Your task to perform on an android device: turn off priority inbox in the gmail app Image 0: 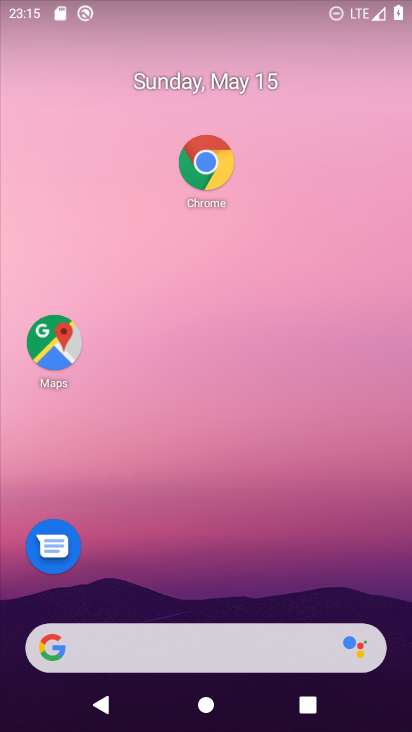
Step 0: drag from (227, 573) to (281, 270)
Your task to perform on an android device: turn off priority inbox in the gmail app Image 1: 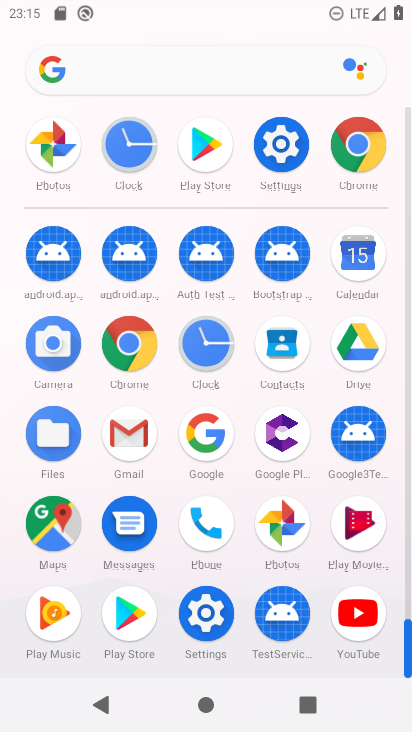
Step 1: drag from (346, 145) to (310, 375)
Your task to perform on an android device: turn off priority inbox in the gmail app Image 2: 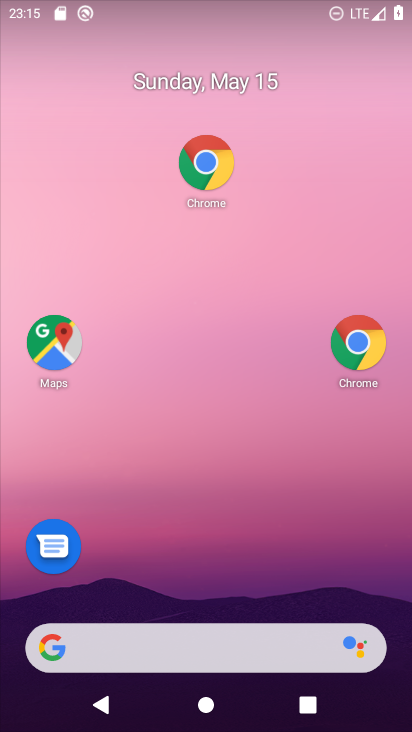
Step 2: press home button
Your task to perform on an android device: turn off priority inbox in the gmail app Image 3: 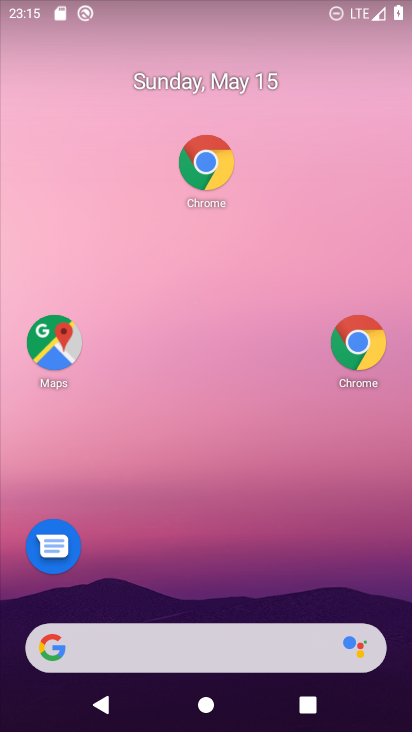
Step 3: drag from (240, 555) to (259, 292)
Your task to perform on an android device: turn off priority inbox in the gmail app Image 4: 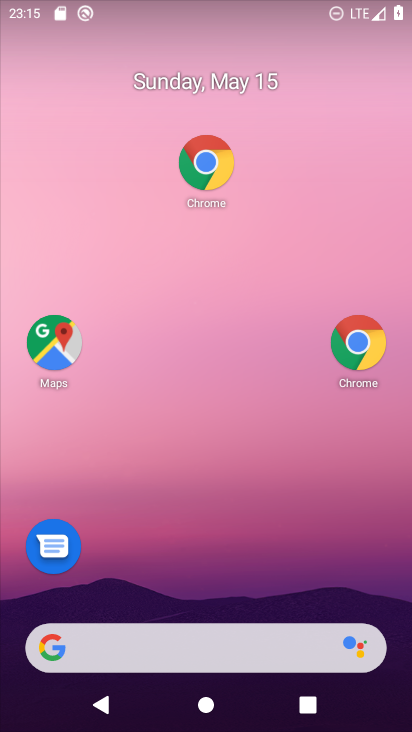
Step 4: drag from (209, 581) to (267, 228)
Your task to perform on an android device: turn off priority inbox in the gmail app Image 5: 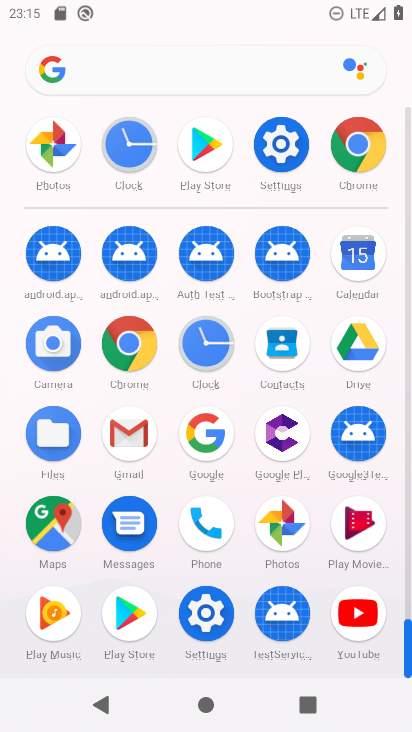
Step 5: click (130, 438)
Your task to perform on an android device: turn off priority inbox in the gmail app Image 6: 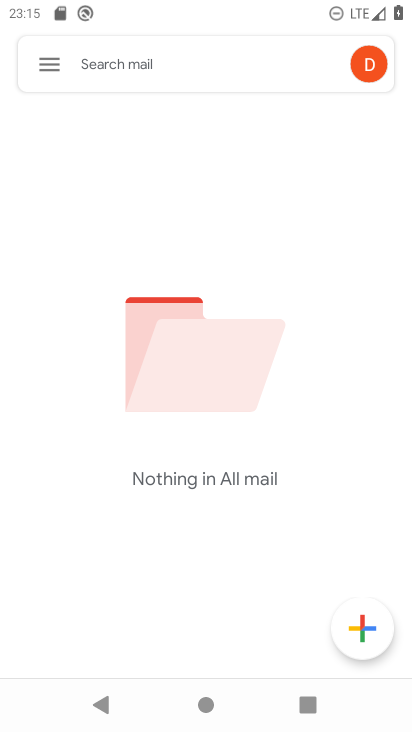
Step 6: click (50, 61)
Your task to perform on an android device: turn off priority inbox in the gmail app Image 7: 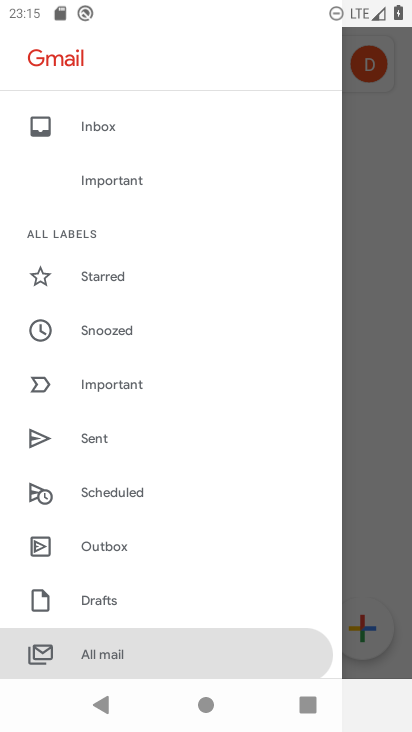
Step 7: drag from (153, 597) to (239, 240)
Your task to perform on an android device: turn off priority inbox in the gmail app Image 8: 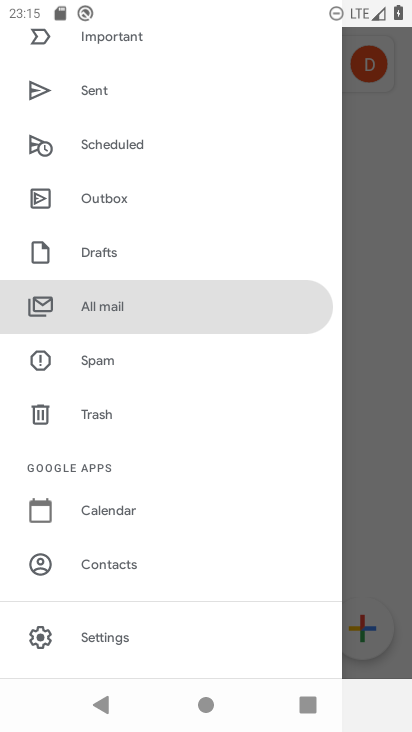
Step 8: click (98, 635)
Your task to perform on an android device: turn off priority inbox in the gmail app Image 9: 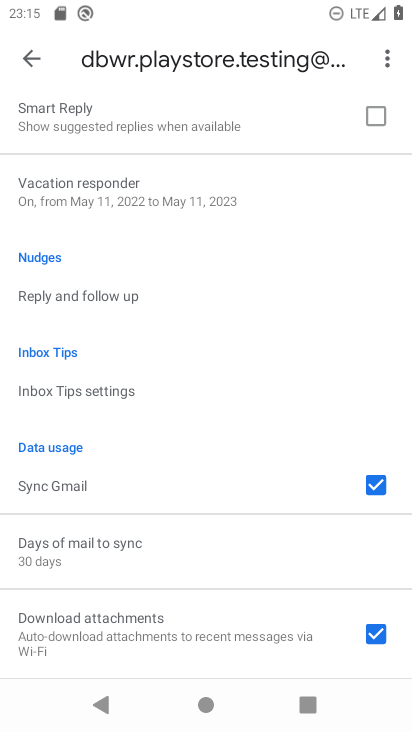
Step 9: drag from (161, 585) to (125, 618)
Your task to perform on an android device: turn off priority inbox in the gmail app Image 10: 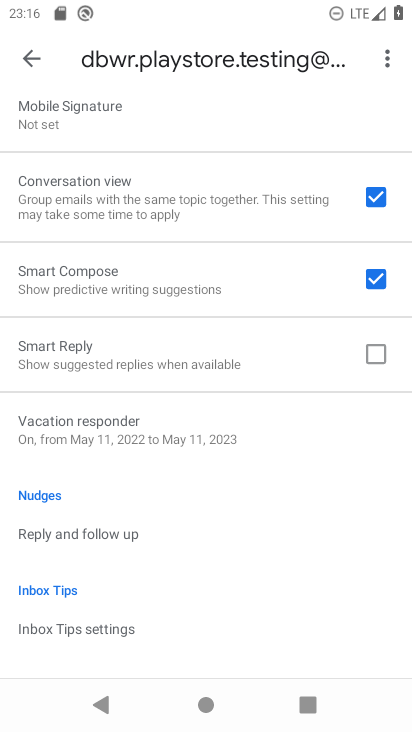
Step 10: drag from (144, 208) to (124, 611)
Your task to perform on an android device: turn off priority inbox in the gmail app Image 11: 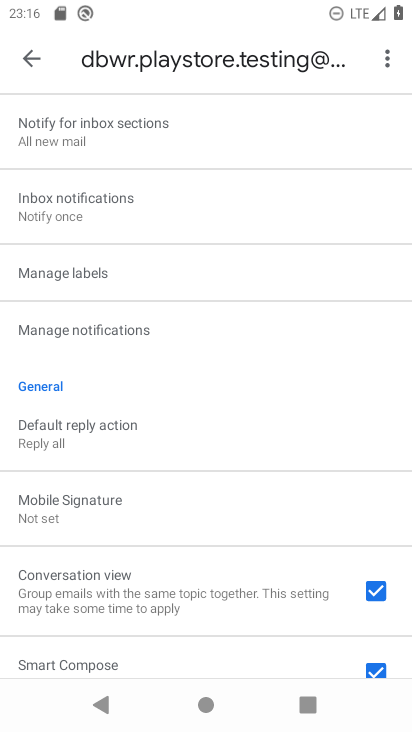
Step 11: drag from (136, 194) to (148, 621)
Your task to perform on an android device: turn off priority inbox in the gmail app Image 12: 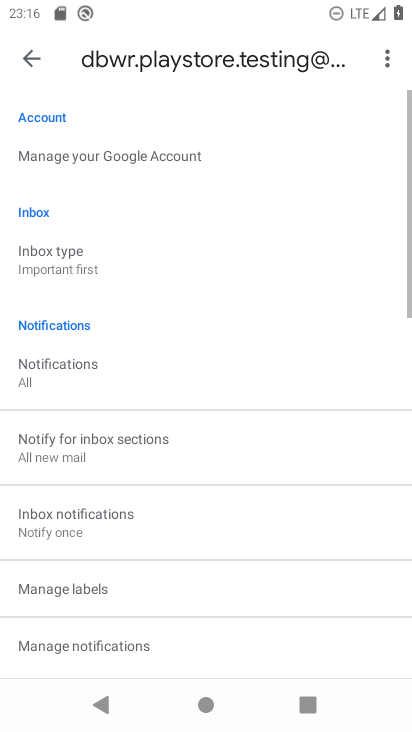
Step 12: click (101, 256)
Your task to perform on an android device: turn off priority inbox in the gmail app Image 13: 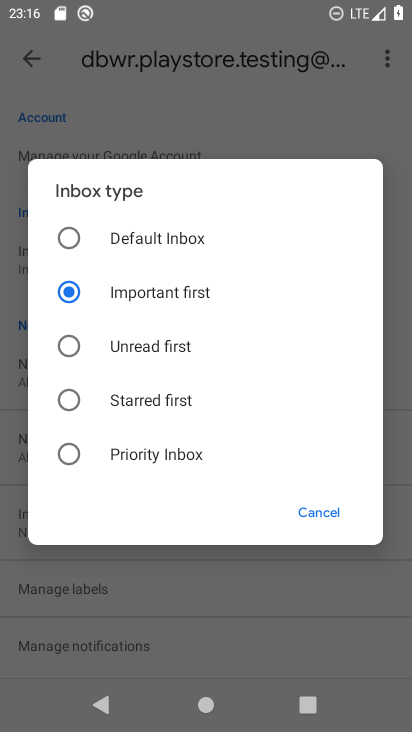
Step 13: click (124, 242)
Your task to perform on an android device: turn off priority inbox in the gmail app Image 14: 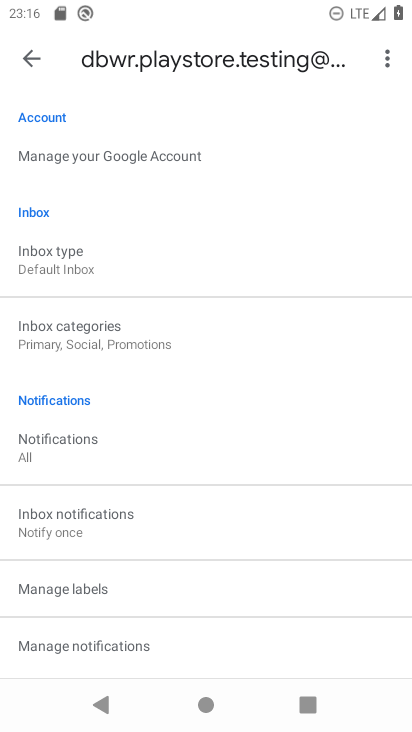
Step 14: task complete